Your task to perform on an android device: check the backup settings in the google photos Image 0: 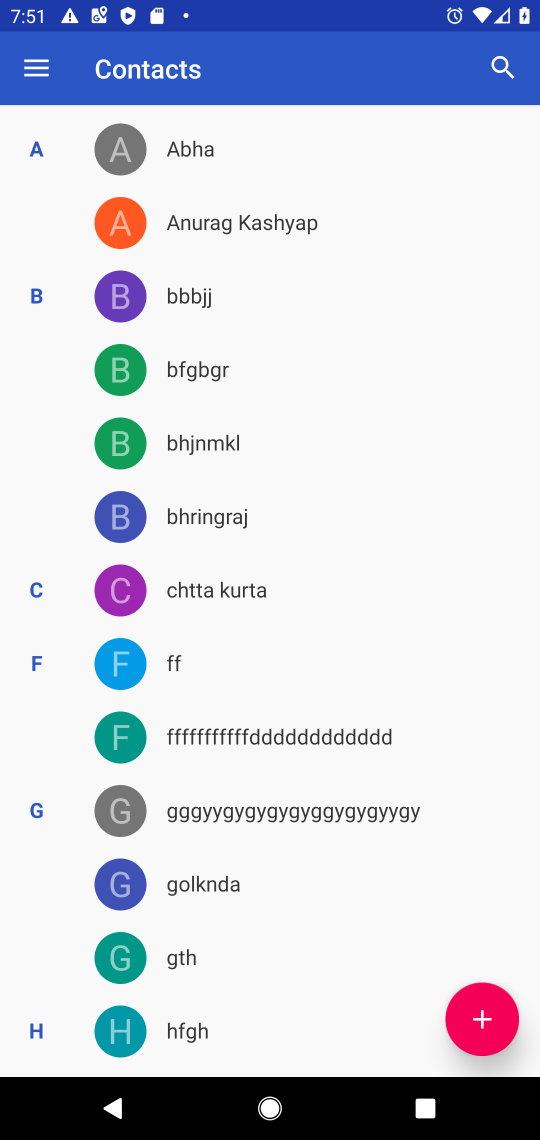
Step 0: press home button
Your task to perform on an android device: check the backup settings in the google photos Image 1: 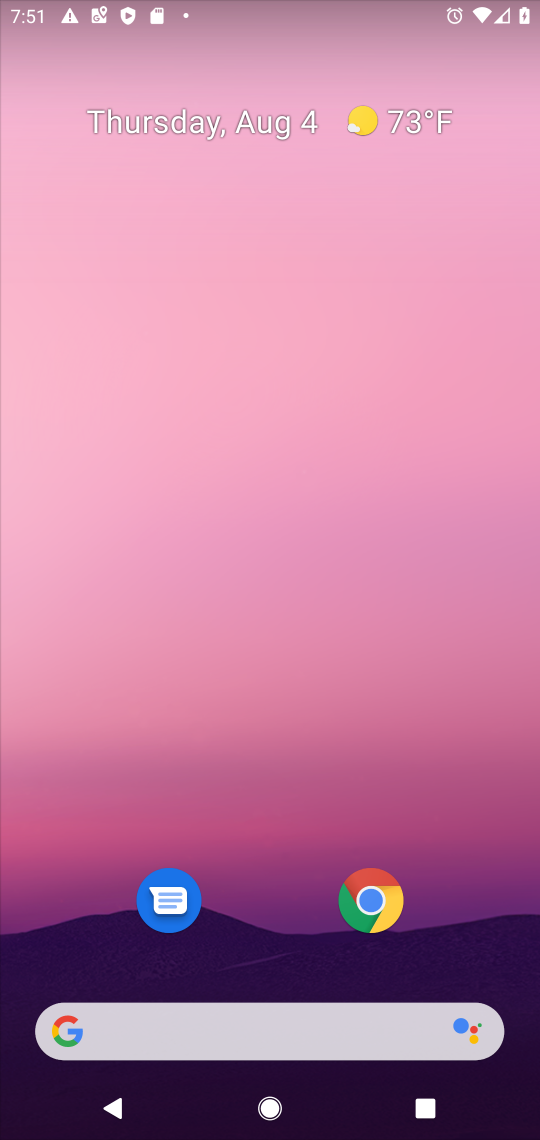
Step 1: drag from (212, 1015) to (326, 92)
Your task to perform on an android device: check the backup settings in the google photos Image 2: 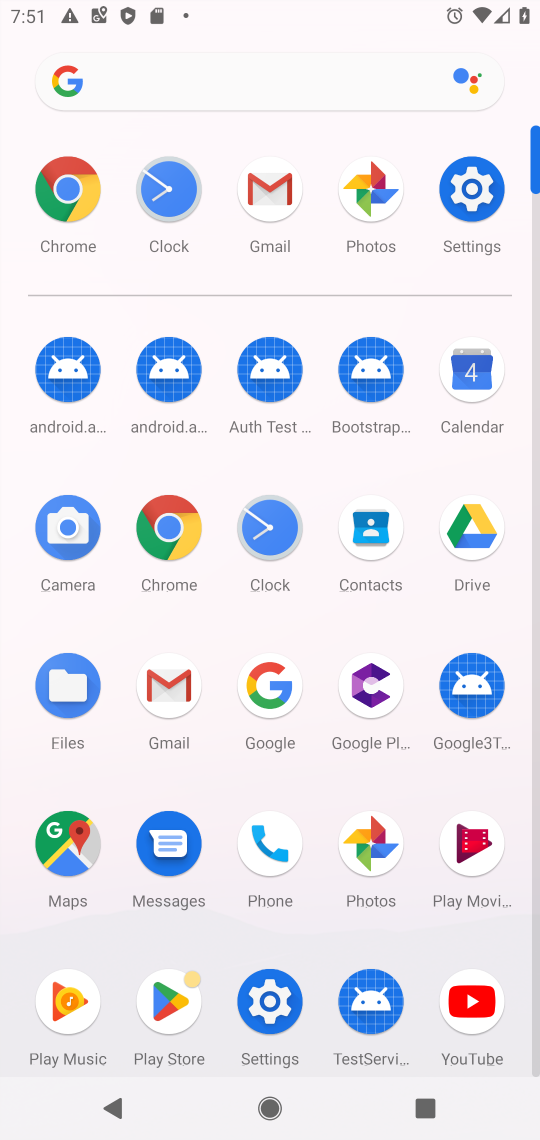
Step 2: click (369, 187)
Your task to perform on an android device: check the backup settings in the google photos Image 3: 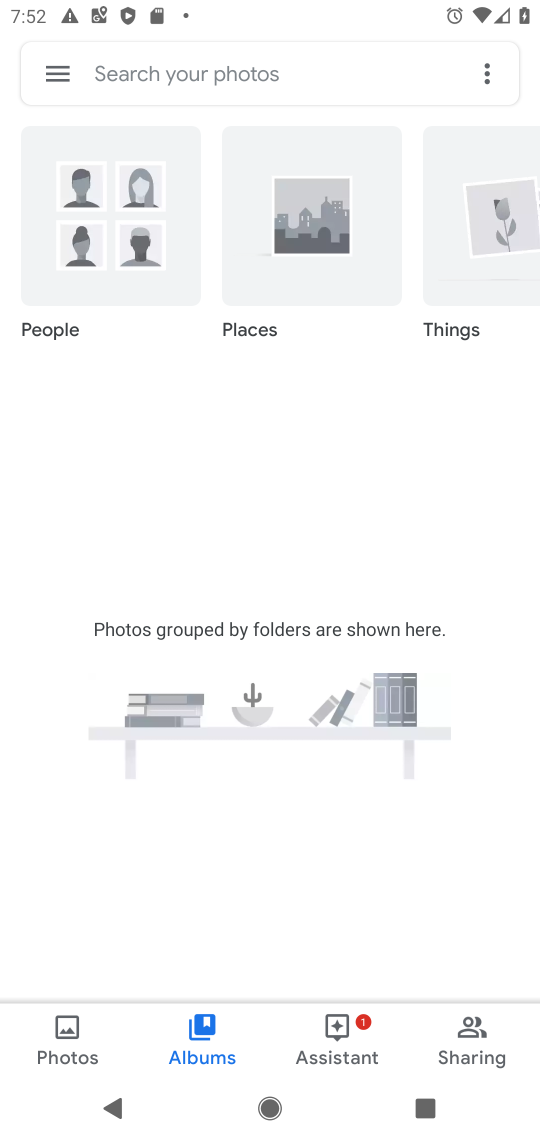
Step 3: click (64, 74)
Your task to perform on an android device: check the backup settings in the google photos Image 4: 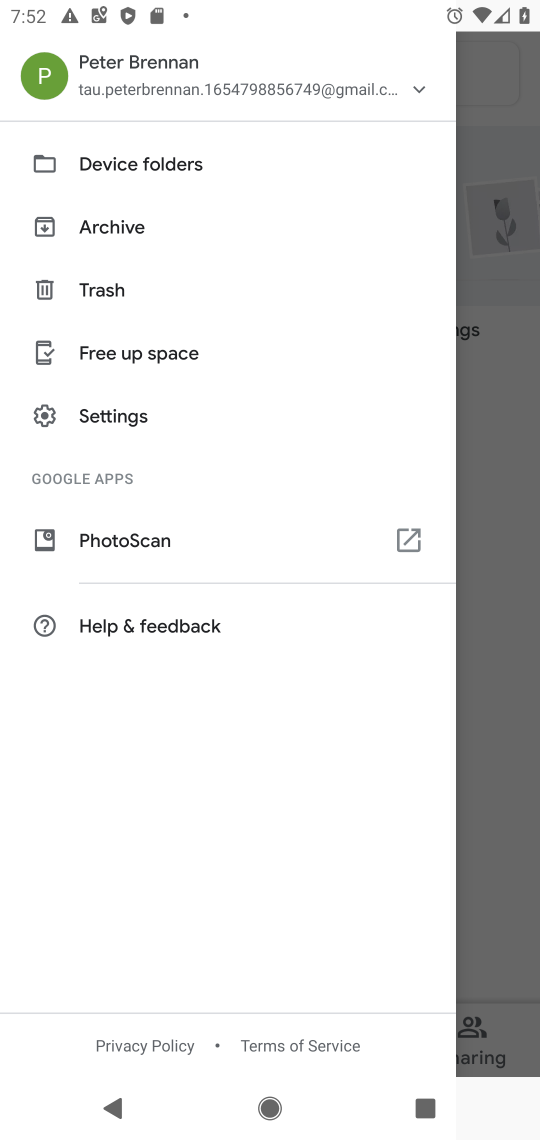
Step 4: click (102, 413)
Your task to perform on an android device: check the backup settings in the google photos Image 5: 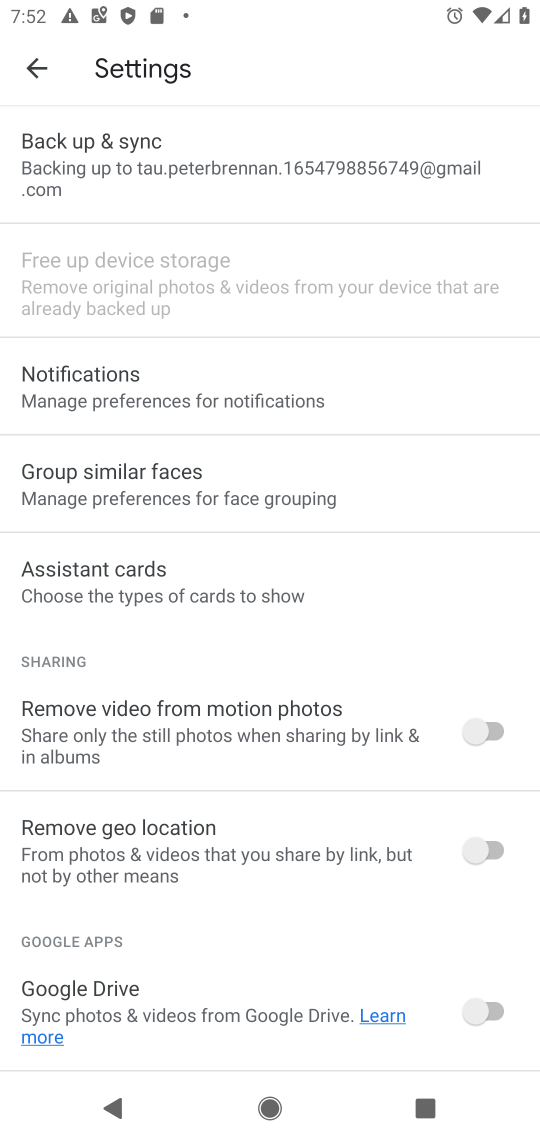
Step 5: click (170, 162)
Your task to perform on an android device: check the backup settings in the google photos Image 6: 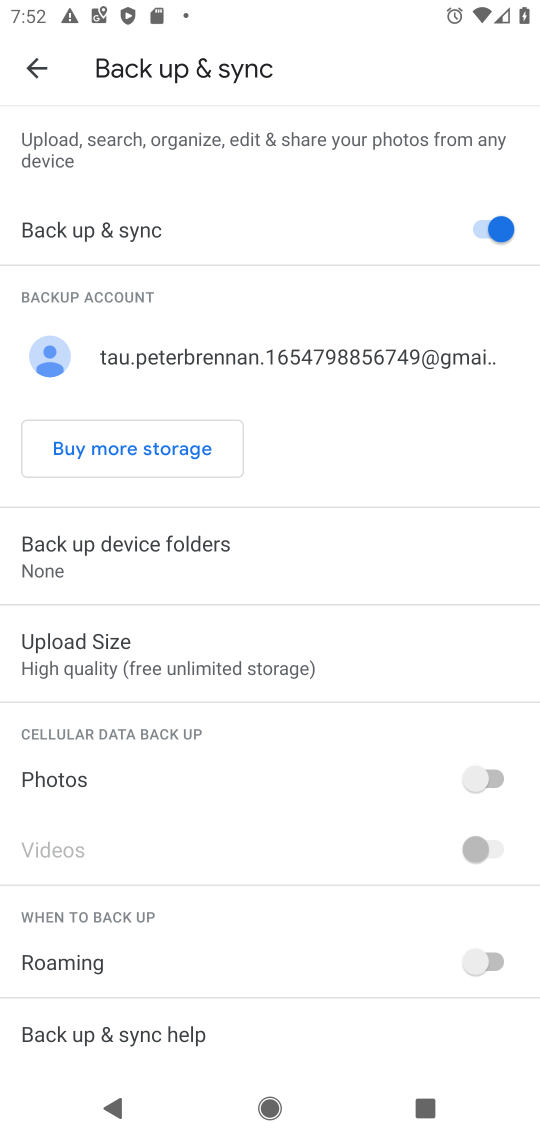
Step 6: task complete